Your task to perform on an android device: change the clock display to analog Image 0: 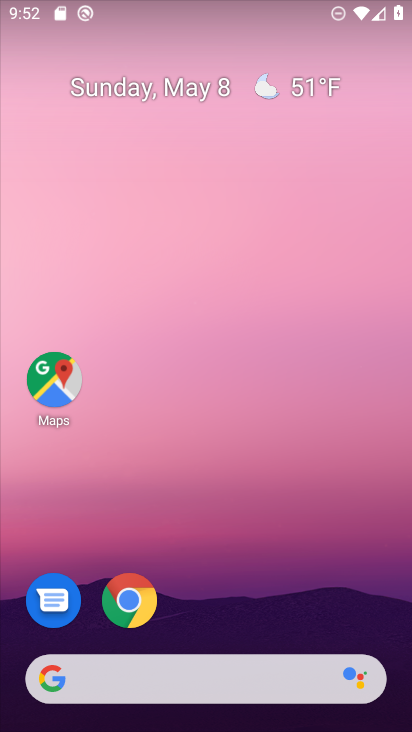
Step 0: drag from (351, 641) to (353, 7)
Your task to perform on an android device: change the clock display to analog Image 1: 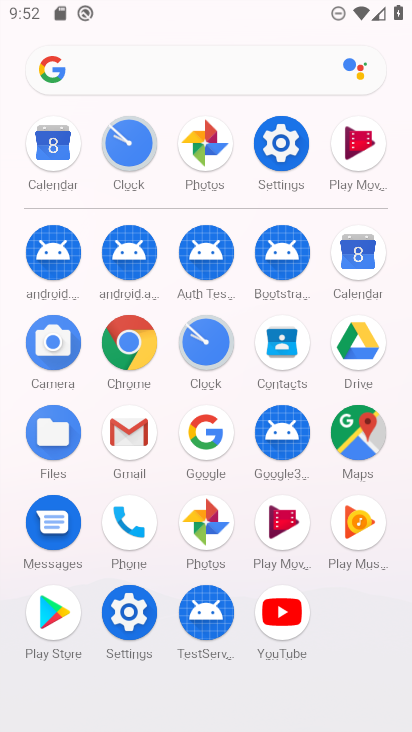
Step 1: click (119, 157)
Your task to perform on an android device: change the clock display to analog Image 2: 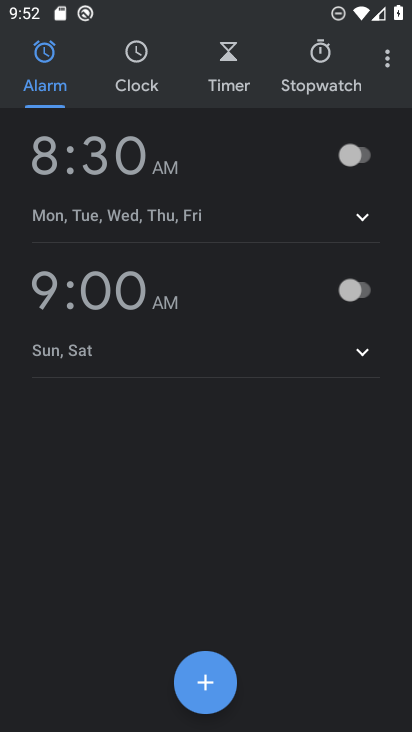
Step 2: click (381, 53)
Your task to perform on an android device: change the clock display to analog Image 3: 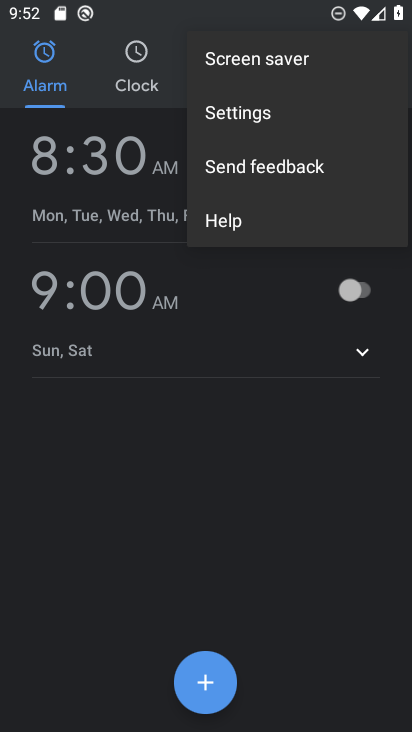
Step 3: click (264, 124)
Your task to perform on an android device: change the clock display to analog Image 4: 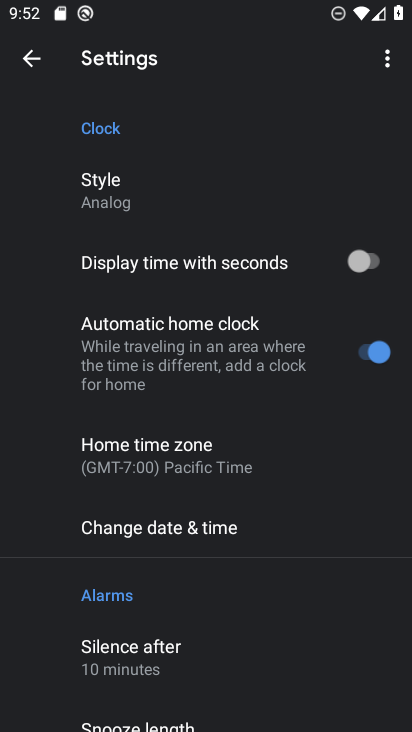
Step 4: task complete